Your task to perform on an android device: turn on bluetooth scan Image 0: 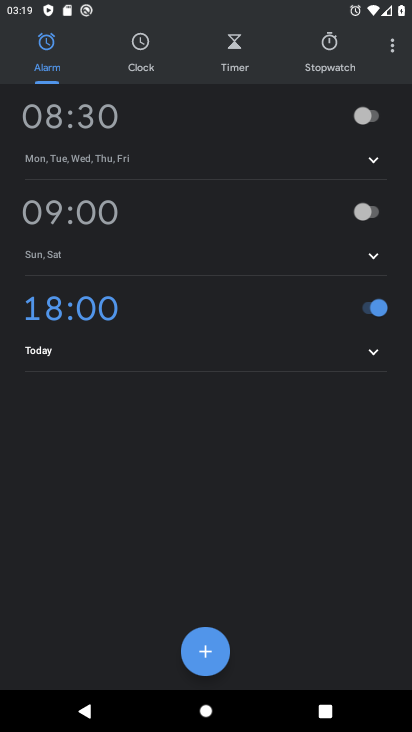
Step 0: press home button
Your task to perform on an android device: turn on bluetooth scan Image 1: 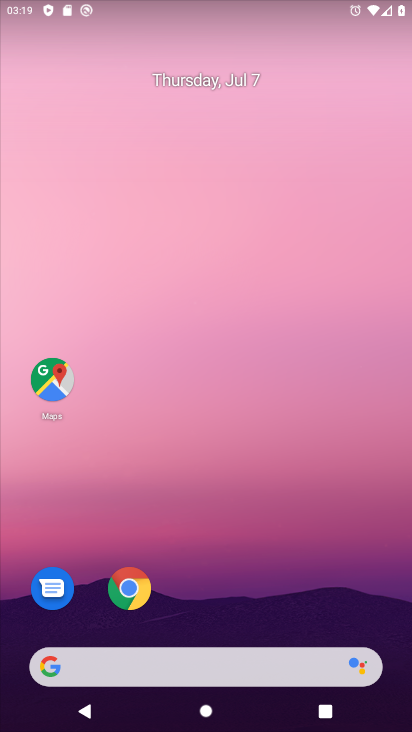
Step 1: drag from (146, 640) to (194, 391)
Your task to perform on an android device: turn on bluetooth scan Image 2: 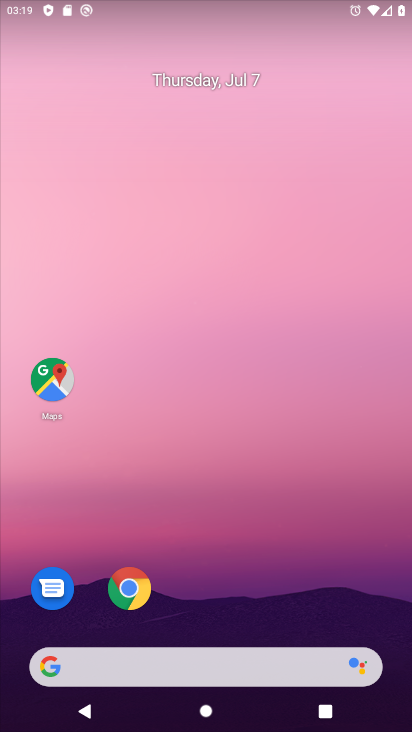
Step 2: drag from (262, 637) to (247, 193)
Your task to perform on an android device: turn on bluetooth scan Image 3: 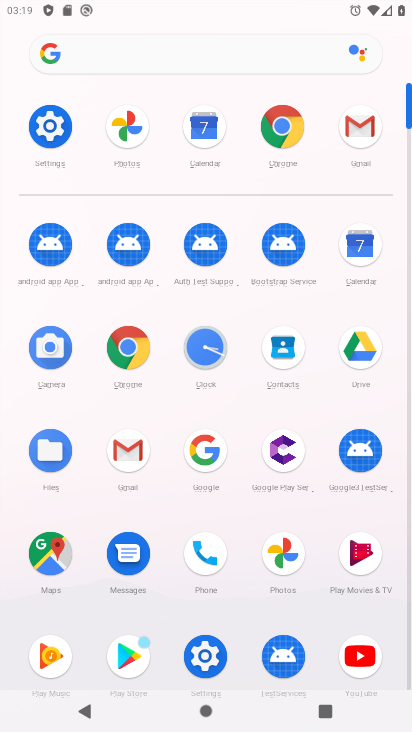
Step 3: click (54, 124)
Your task to perform on an android device: turn on bluetooth scan Image 4: 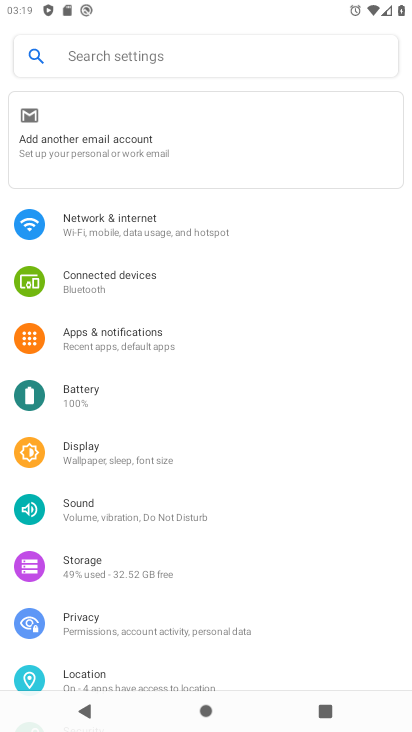
Step 4: click (99, 682)
Your task to perform on an android device: turn on bluetooth scan Image 5: 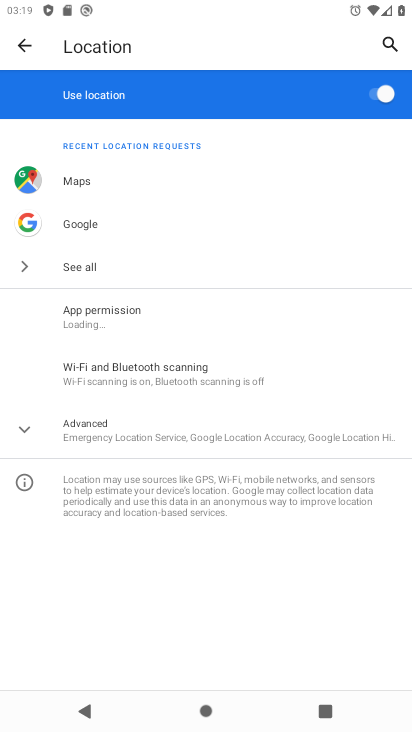
Step 5: click (116, 370)
Your task to perform on an android device: turn on bluetooth scan Image 6: 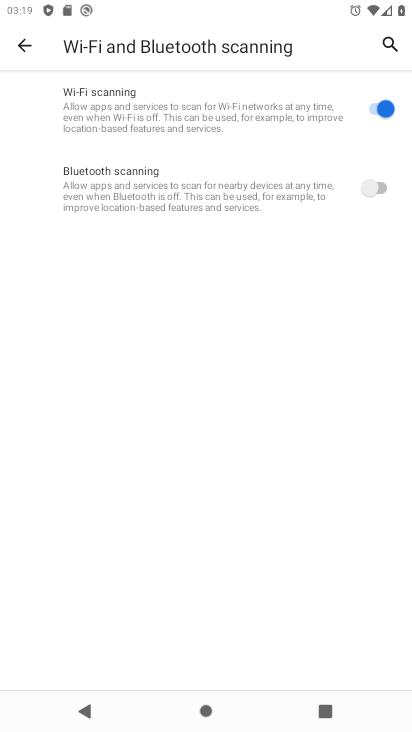
Step 6: click (379, 185)
Your task to perform on an android device: turn on bluetooth scan Image 7: 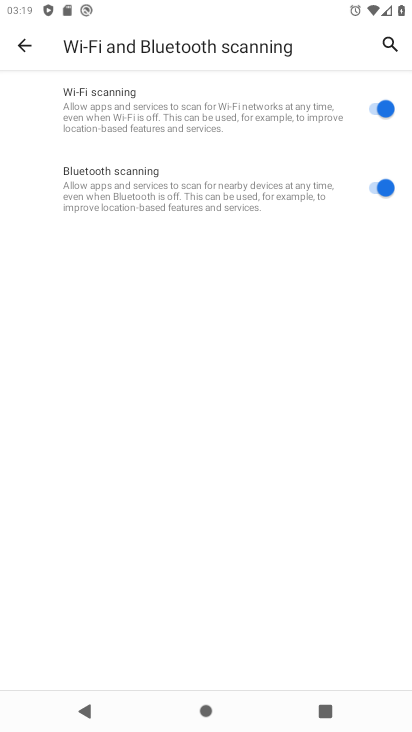
Step 7: task complete